Your task to perform on an android device: turn on the 24-hour format for clock Image 0: 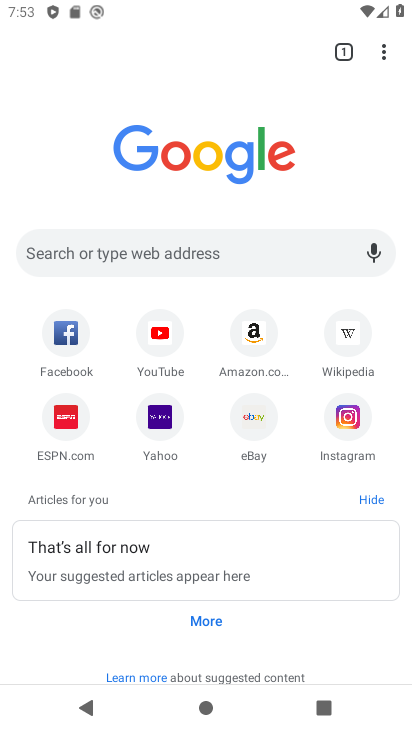
Step 0: press home button
Your task to perform on an android device: turn on the 24-hour format for clock Image 1: 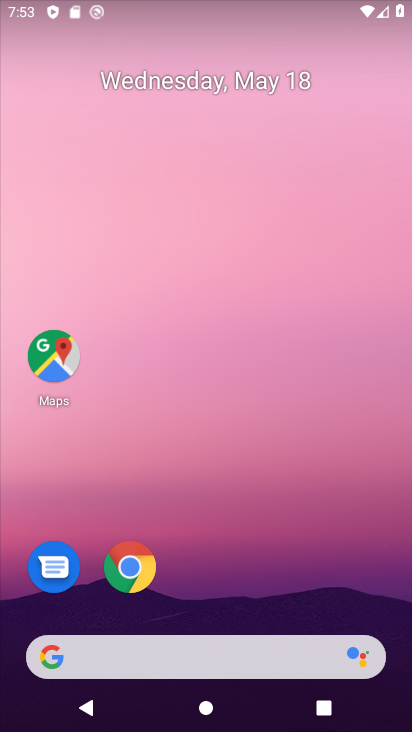
Step 1: drag from (238, 594) to (246, 147)
Your task to perform on an android device: turn on the 24-hour format for clock Image 2: 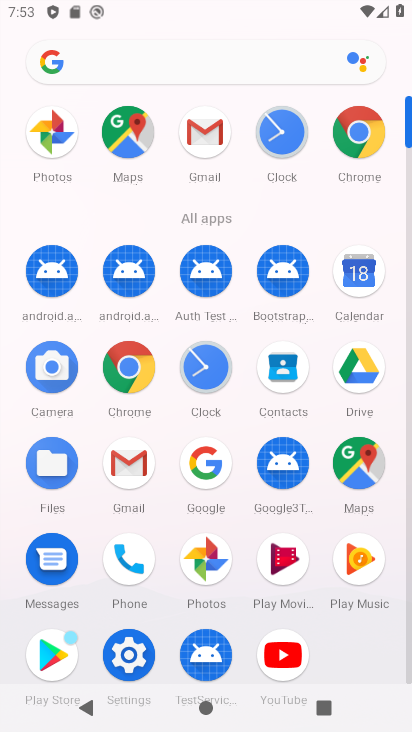
Step 2: drag from (249, 561) to (218, 332)
Your task to perform on an android device: turn on the 24-hour format for clock Image 3: 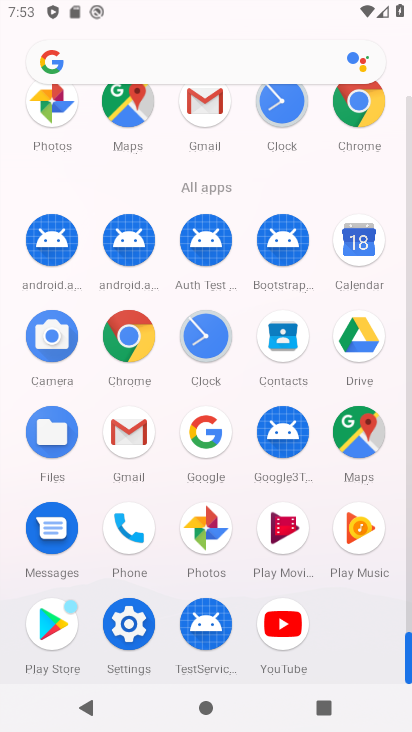
Step 3: click (205, 330)
Your task to perform on an android device: turn on the 24-hour format for clock Image 4: 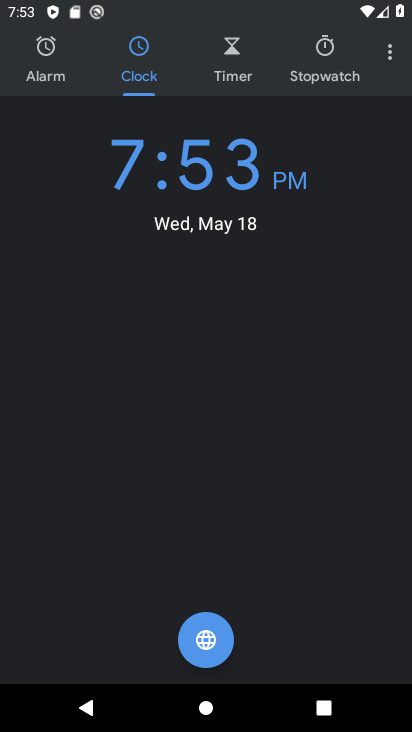
Step 4: click (392, 53)
Your task to perform on an android device: turn on the 24-hour format for clock Image 5: 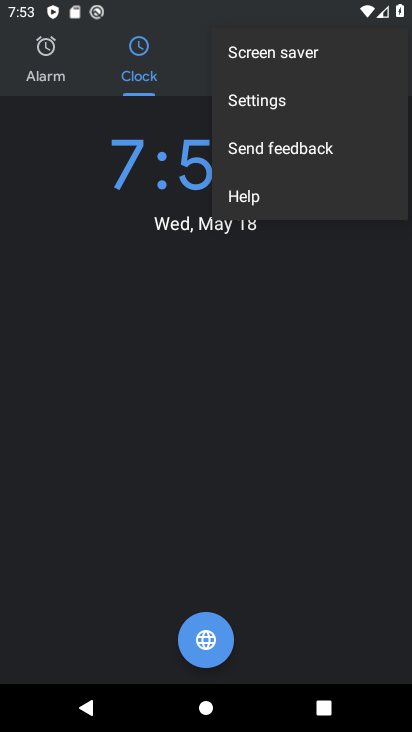
Step 5: click (292, 103)
Your task to perform on an android device: turn on the 24-hour format for clock Image 6: 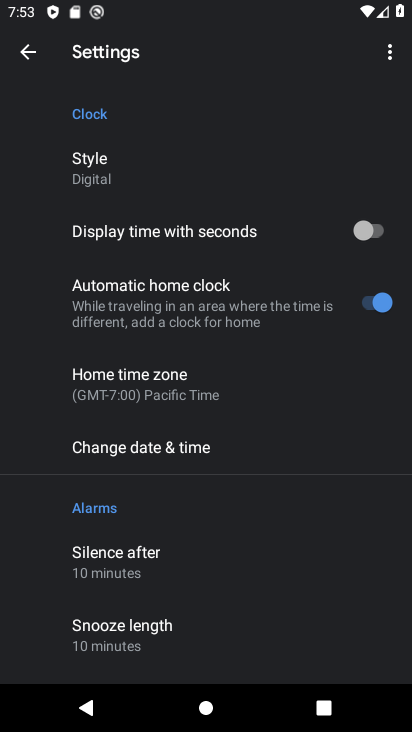
Step 6: click (104, 445)
Your task to perform on an android device: turn on the 24-hour format for clock Image 7: 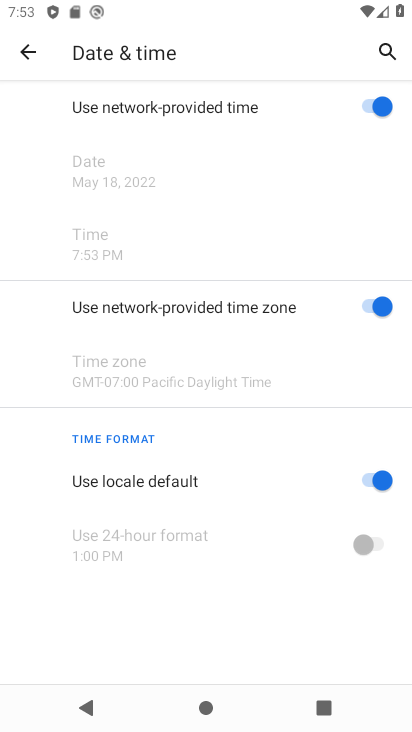
Step 7: drag from (243, 555) to (232, 510)
Your task to perform on an android device: turn on the 24-hour format for clock Image 8: 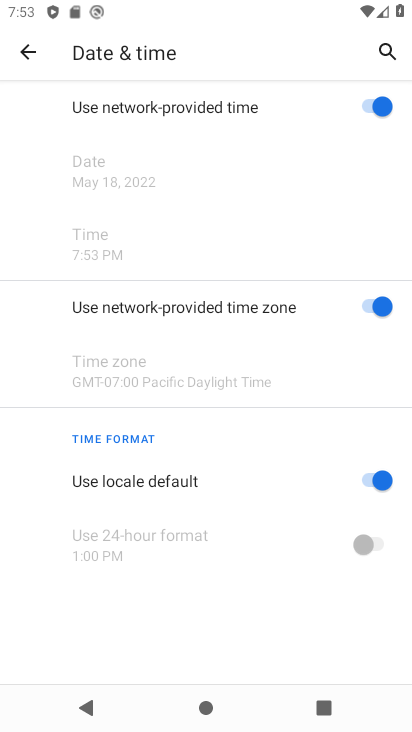
Step 8: click (371, 471)
Your task to perform on an android device: turn on the 24-hour format for clock Image 9: 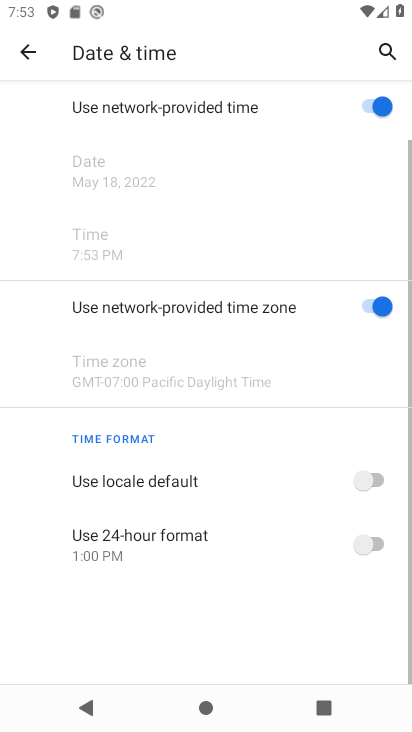
Step 9: click (364, 540)
Your task to perform on an android device: turn on the 24-hour format for clock Image 10: 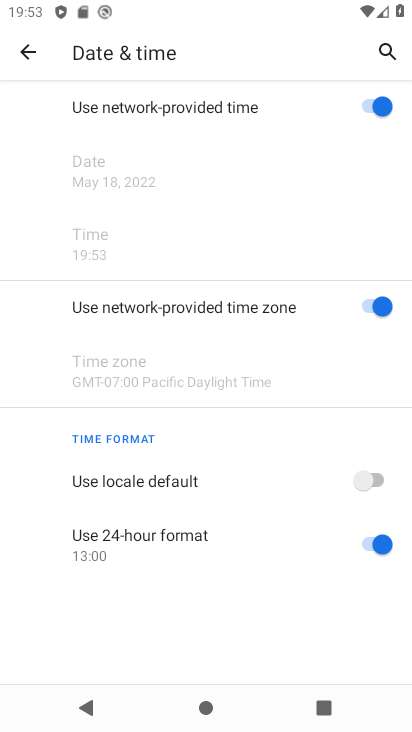
Step 10: task complete